Your task to perform on an android device: turn on airplane mode Image 0: 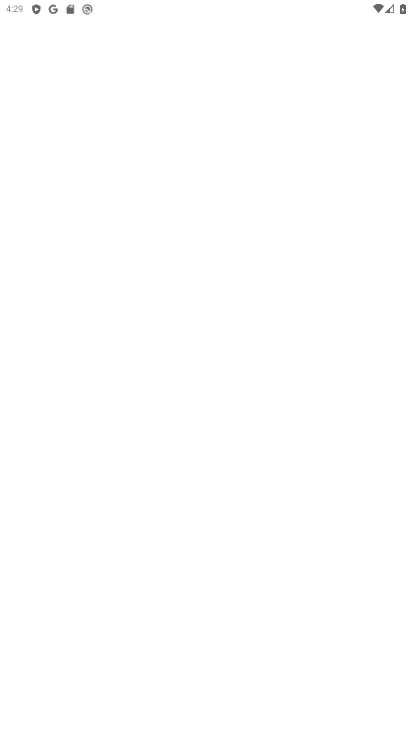
Step 0: press home button
Your task to perform on an android device: turn on airplane mode Image 1: 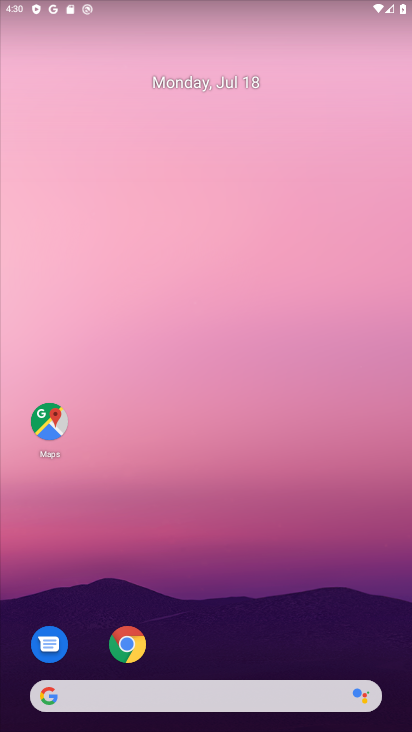
Step 1: drag from (190, 21) to (182, 489)
Your task to perform on an android device: turn on airplane mode Image 2: 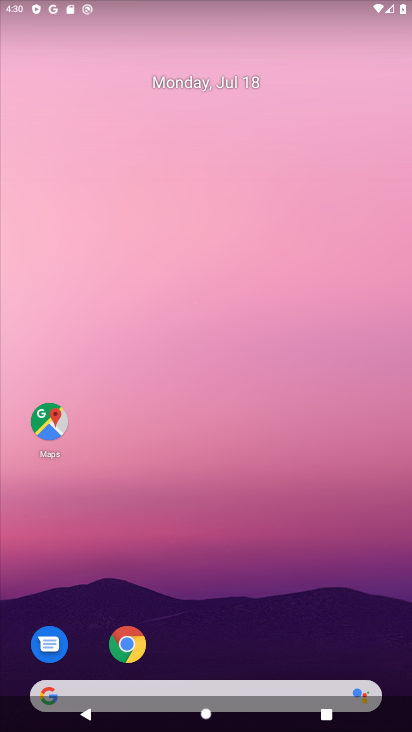
Step 2: drag from (207, 7) to (202, 521)
Your task to perform on an android device: turn on airplane mode Image 3: 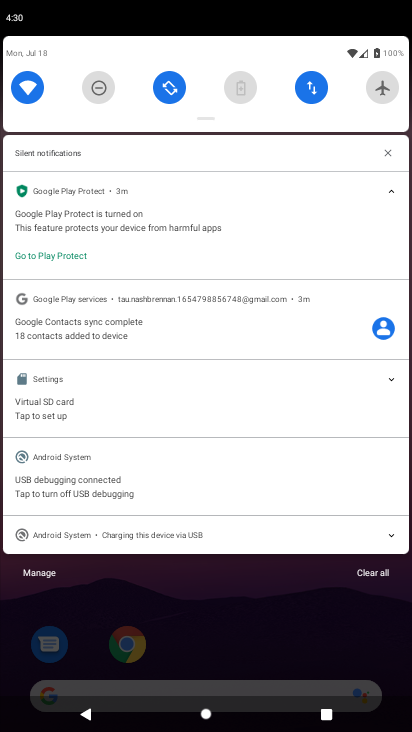
Step 3: click (381, 92)
Your task to perform on an android device: turn on airplane mode Image 4: 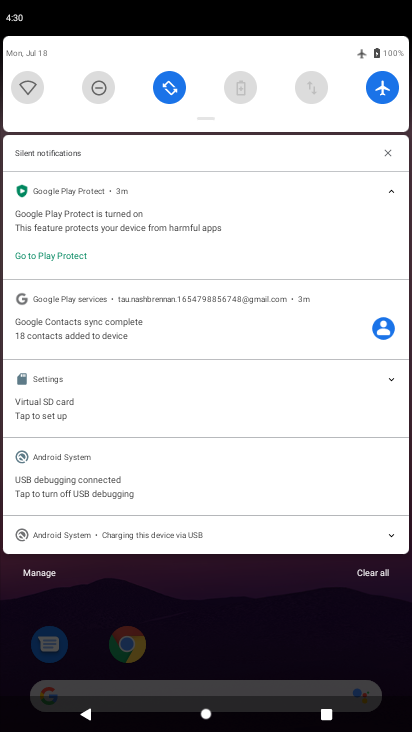
Step 4: task complete